Your task to perform on an android device: Show the shopping cart on amazon. Add "usb-c to usb-a" to the cart on amazon, then select checkout. Image 0: 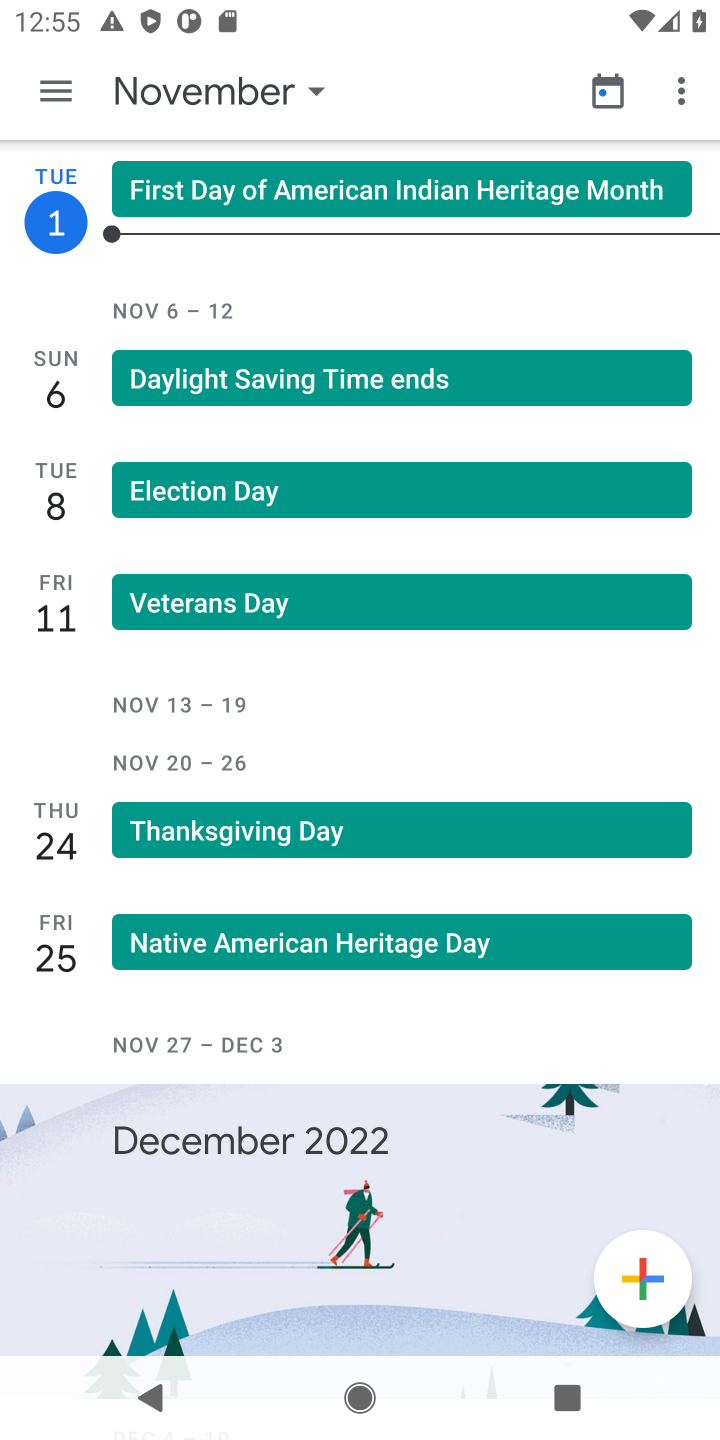
Step 0: press home button
Your task to perform on an android device: Show the shopping cart on amazon. Add "usb-c to usb-a" to the cart on amazon, then select checkout. Image 1: 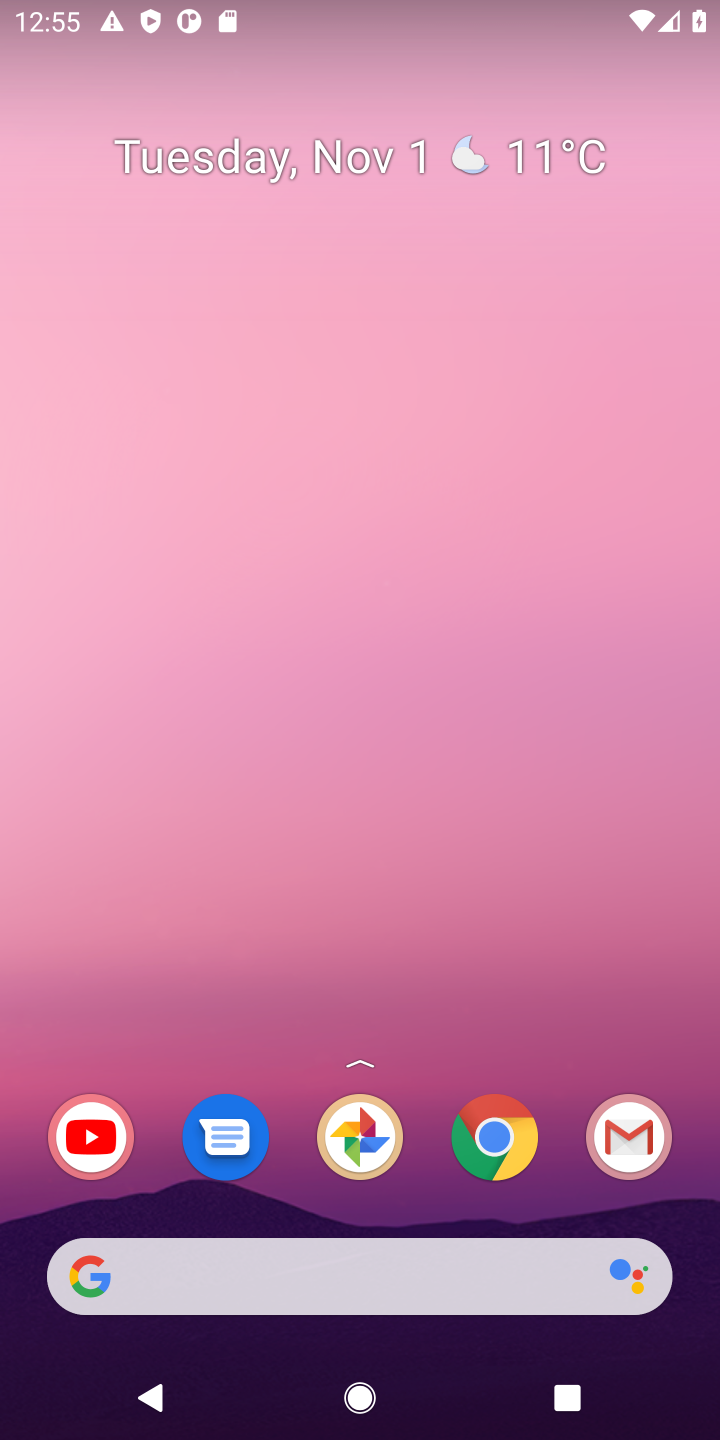
Step 1: click (493, 1147)
Your task to perform on an android device: Show the shopping cart on amazon. Add "usb-c to usb-a" to the cart on amazon, then select checkout. Image 2: 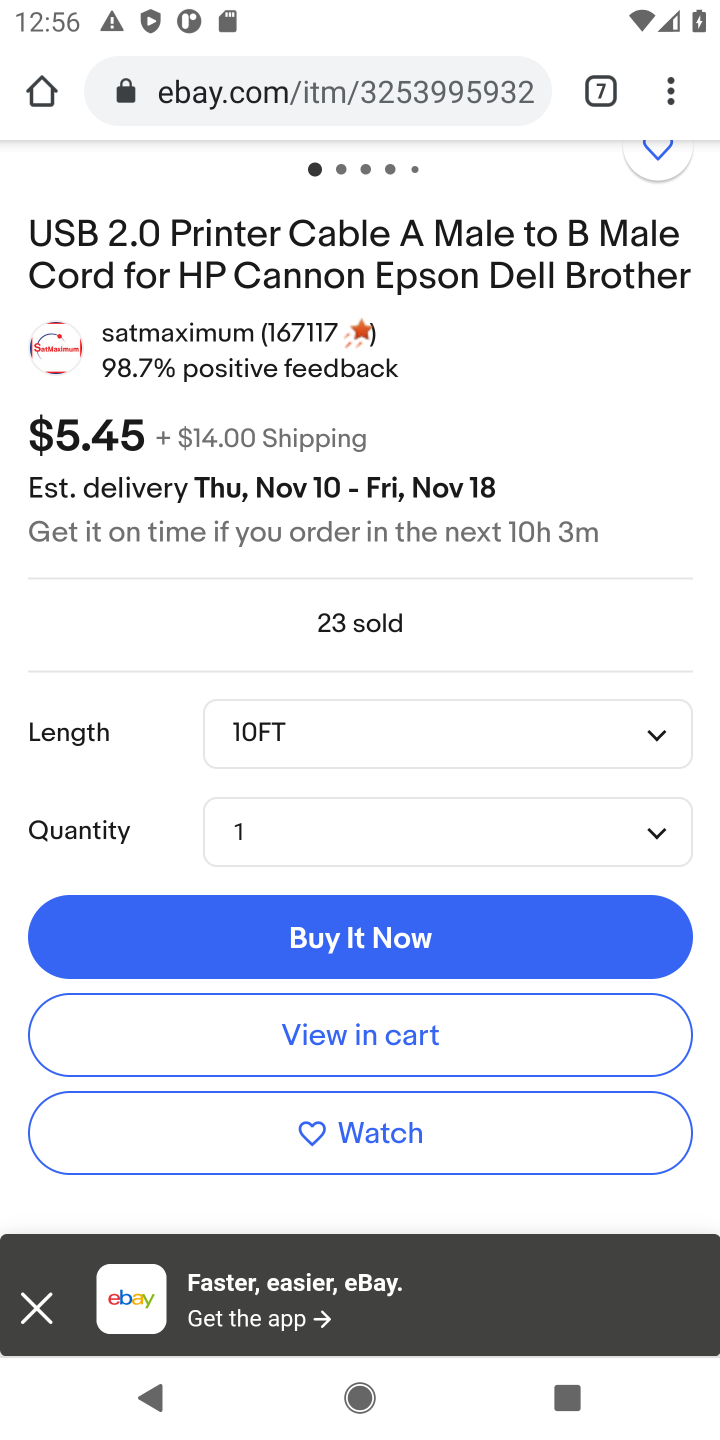
Step 2: click (597, 90)
Your task to perform on an android device: Show the shopping cart on amazon. Add "usb-c to usb-a" to the cart on amazon, then select checkout. Image 3: 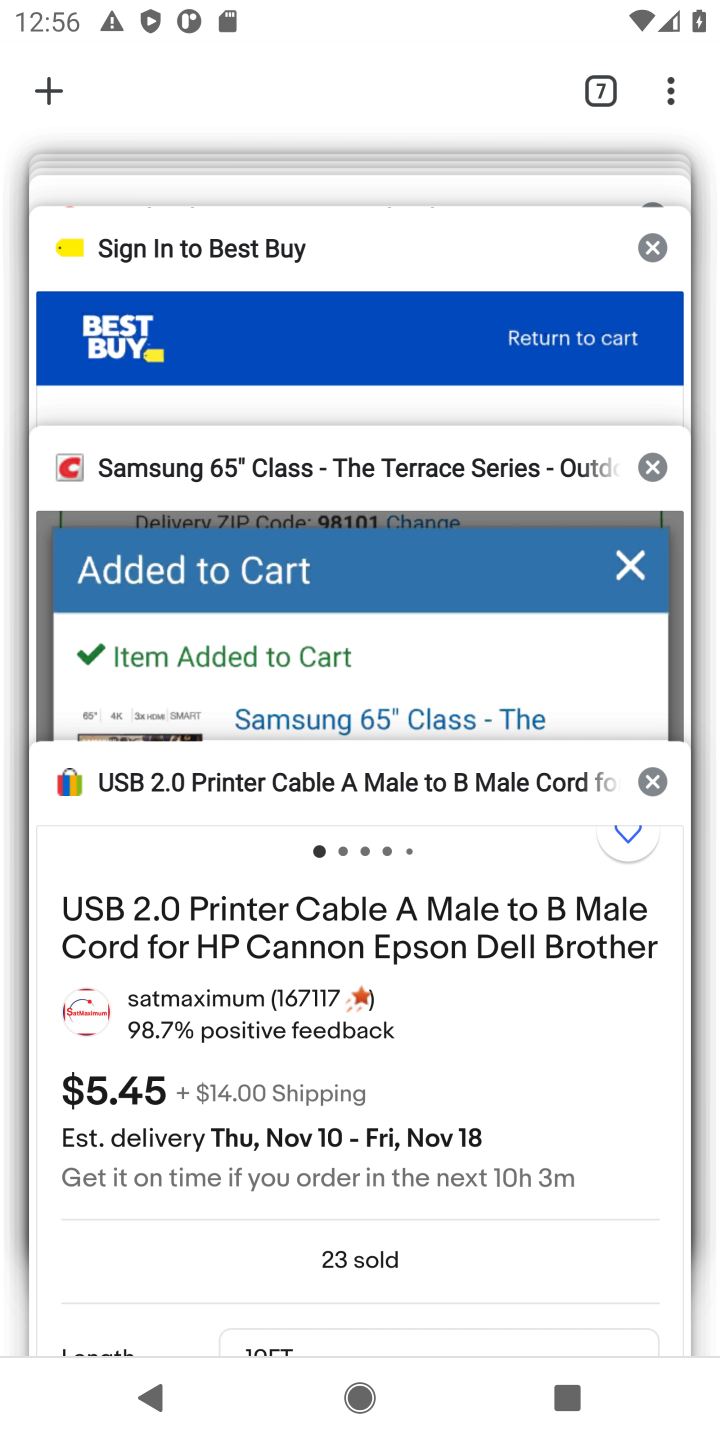
Step 3: drag from (393, 283) to (358, 592)
Your task to perform on an android device: Show the shopping cart on amazon. Add "usb-c to usb-a" to the cart on amazon, then select checkout. Image 4: 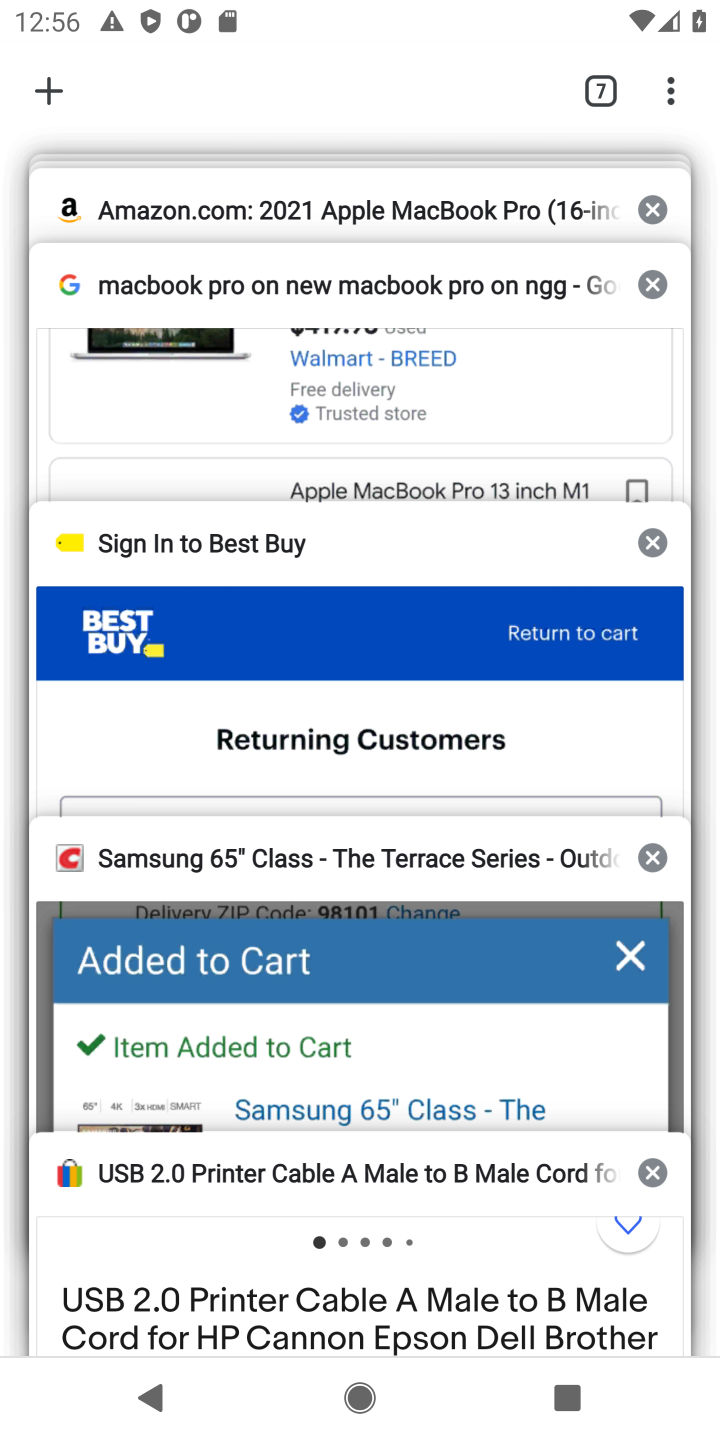
Step 4: drag from (424, 265) to (395, 489)
Your task to perform on an android device: Show the shopping cart on amazon. Add "usb-c to usb-a" to the cart on amazon, then select checkout. Image 5: 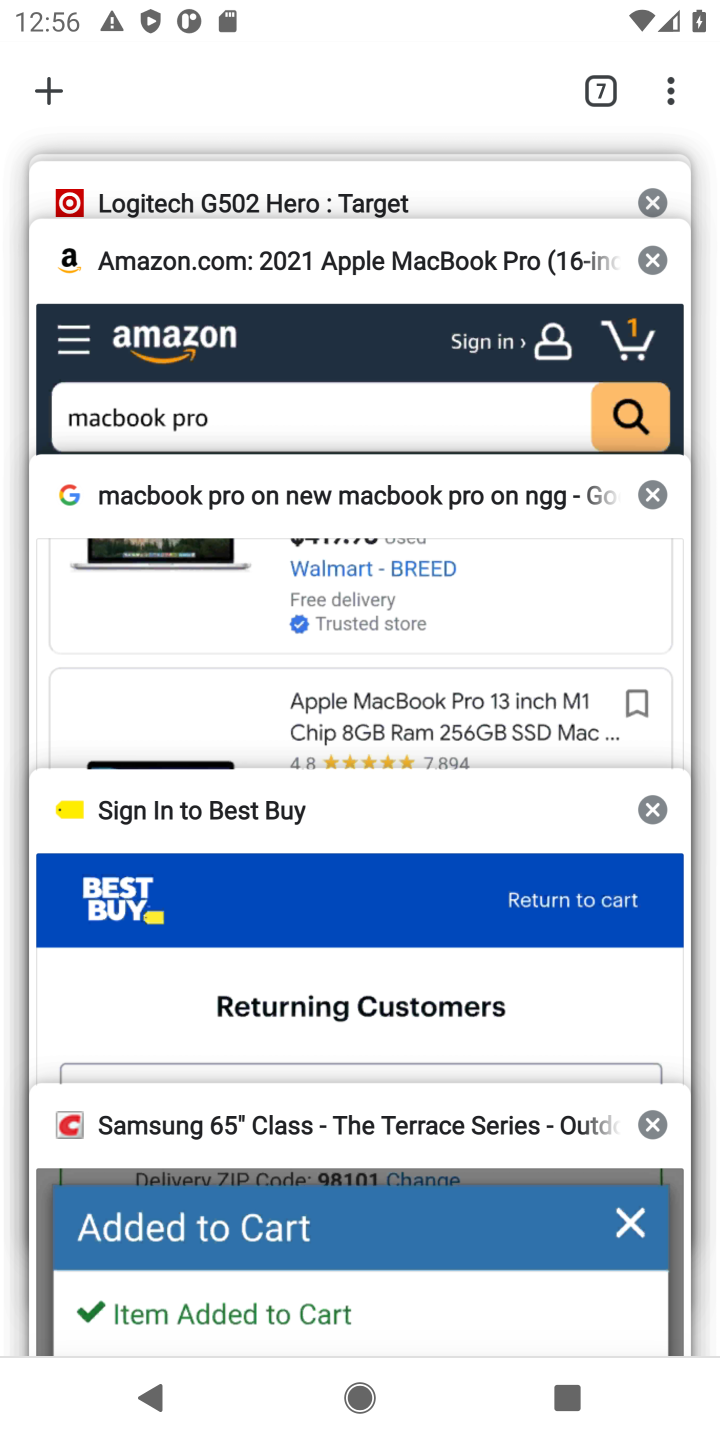
Step 5: click (386, 302)
Your task to perform on an android device: Show the shopping cart on amazon. Add "usb-c to usb-a" to the cart on amazon, then select checkout. Image 6: 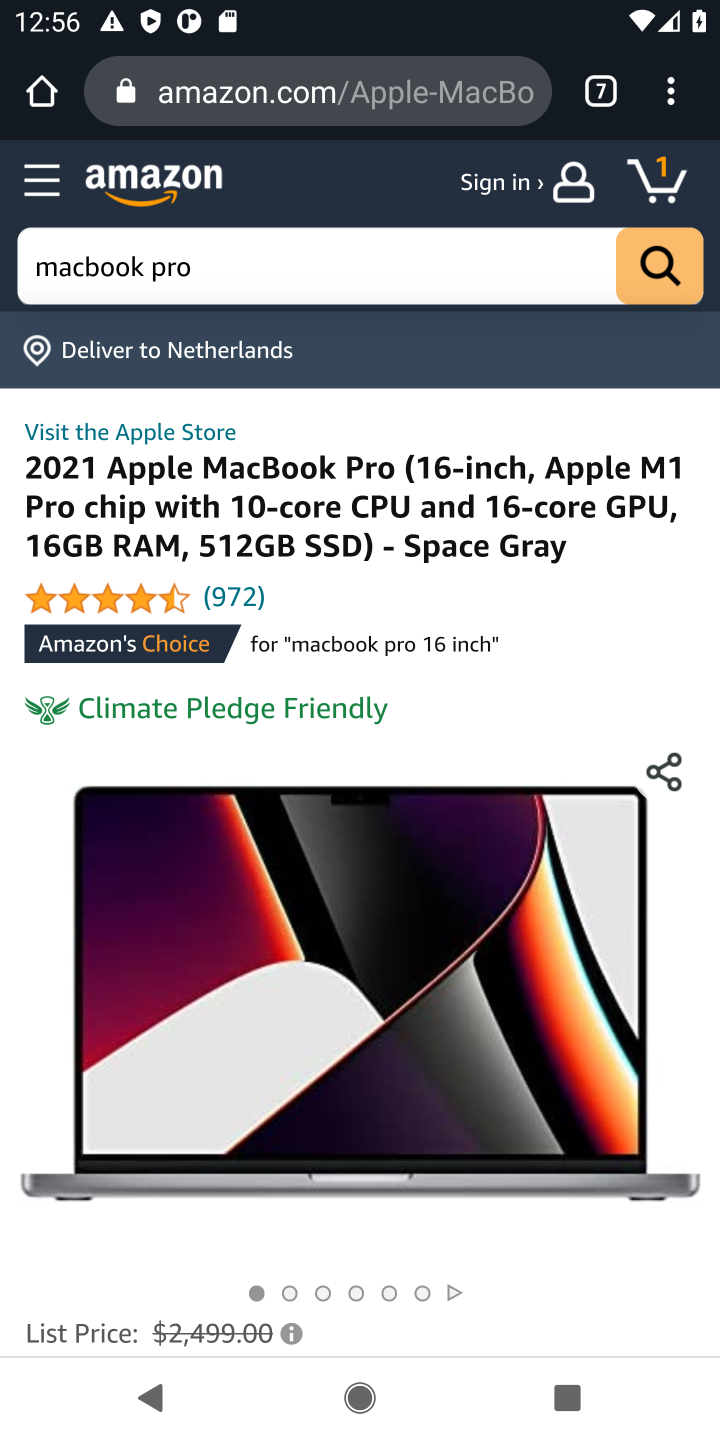
Step 6: click (305, 260)
Your task to perform on an android device: Show the shopping cart on amazon. Add "usb-c to usb-a" to the cart on amazon, then select checkout. Image 7: 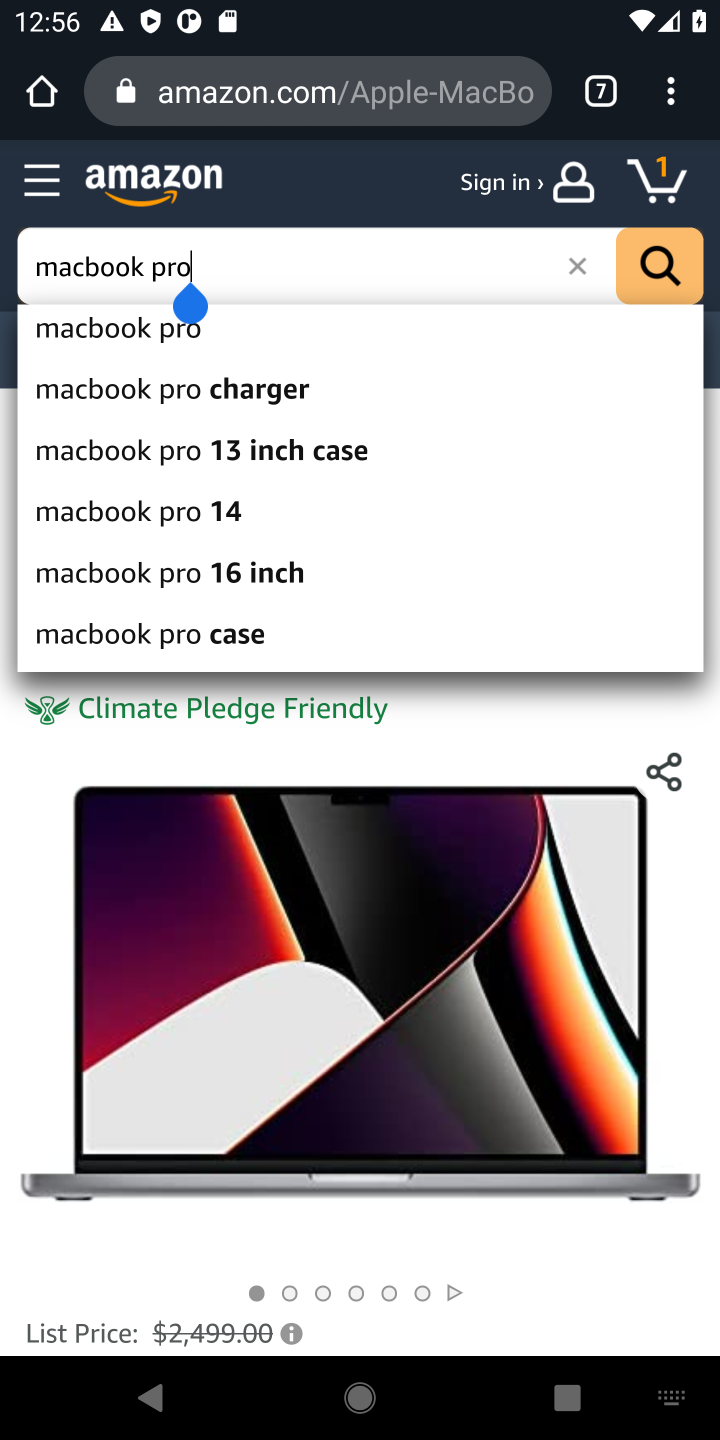
Step 7: click (583, 274)
Your task to perform on an android device: Show the shopping cart on amazon. Add "usb-c to usb-a" to the cart on amazon, then select checkout. Image 8: 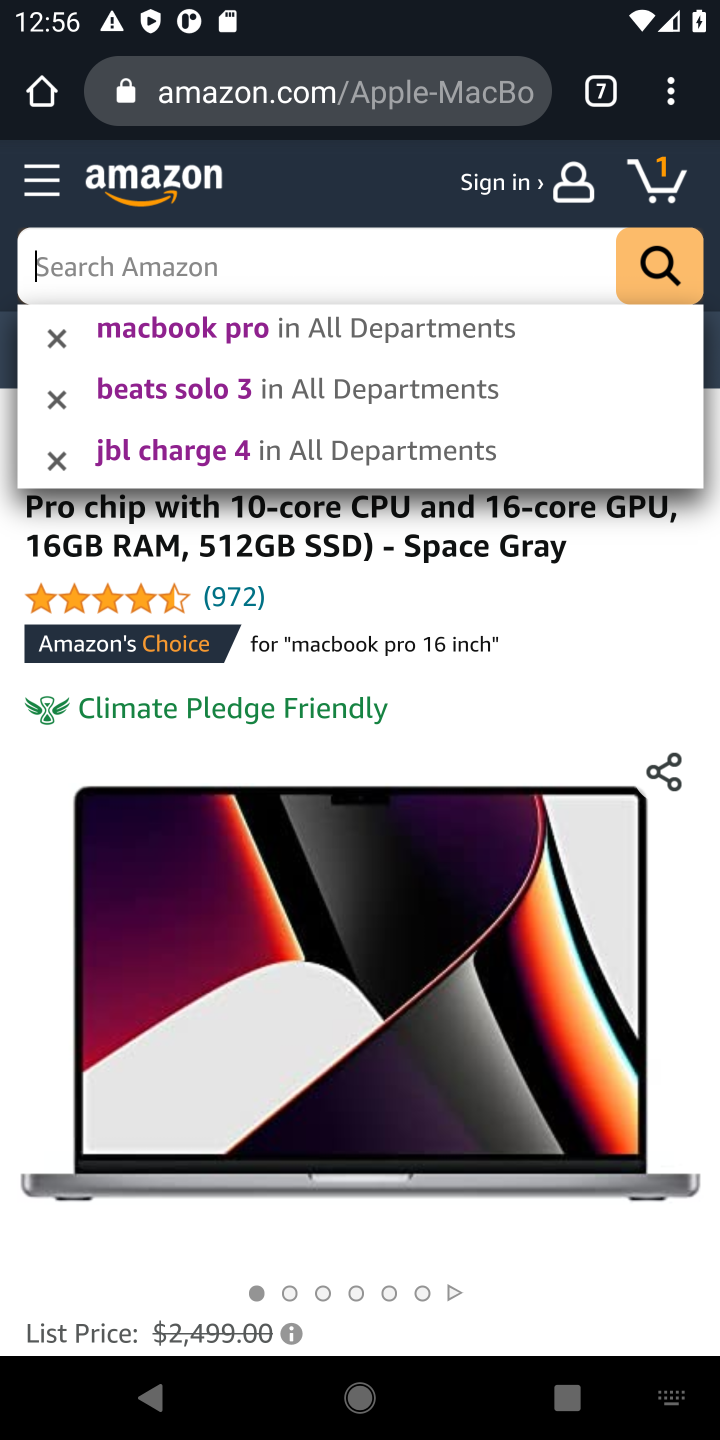
Step 8: type "usb-c to usb-a"
Your task to perform on an android device: Show the shopping cart on amazon. Add "usb-c to usb-a" to the cart on amazon, then select checkout. Image 9: 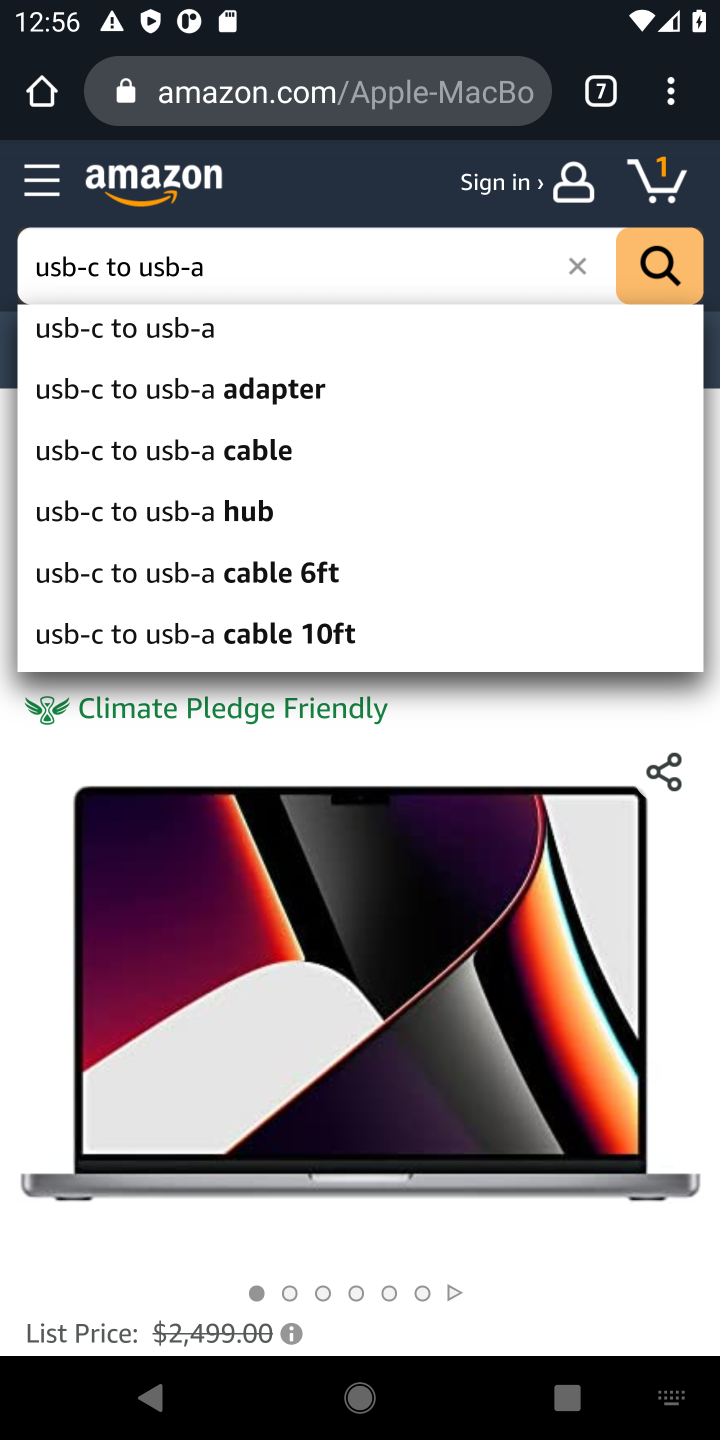
Step 9: click (188, 330)
Your task to perform on an android device: Show the shopping cart on amazon. Add "usb-c to usb-a" to the cart on amazon, then select checkout. Image 10: 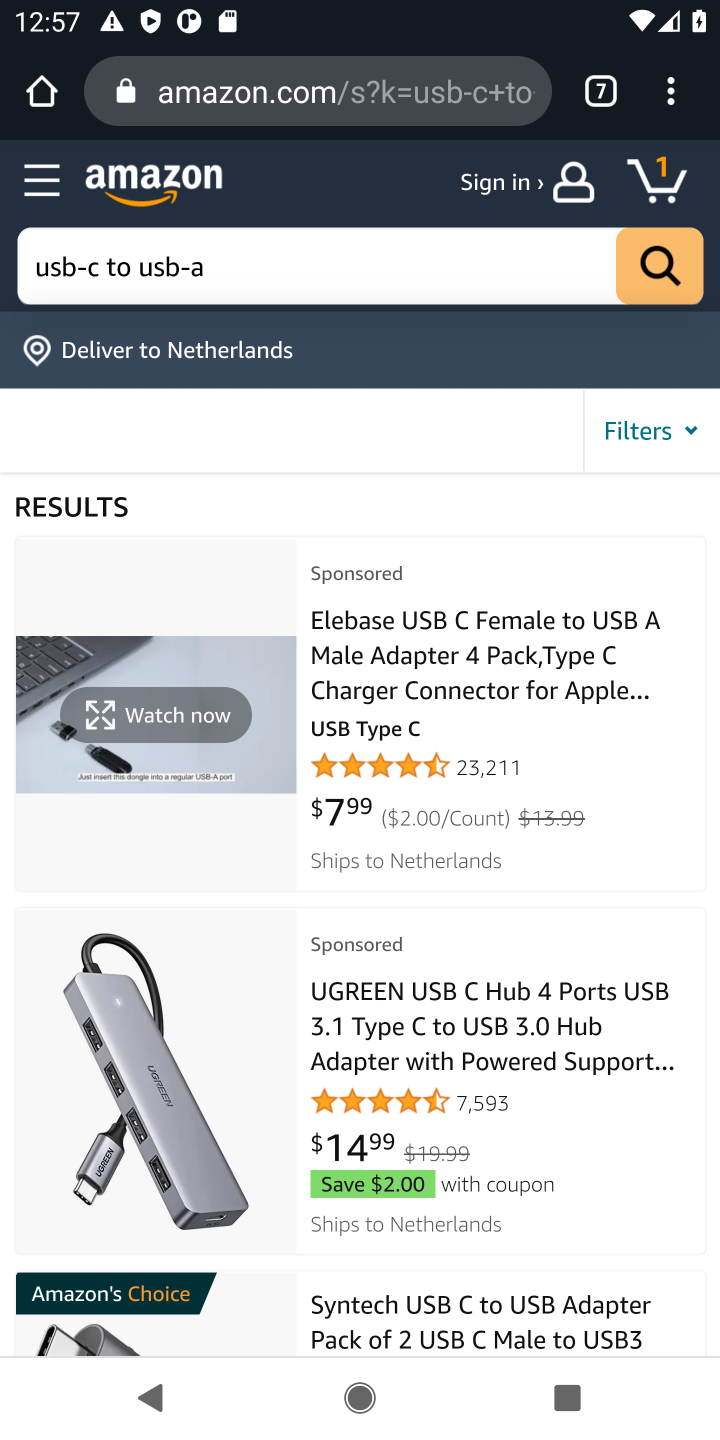
Step 10: click (450, 1043)
Your task to perform on an android device: Show the shopping cart on amazon. Add "usb-c to usb-a" to the cart on amazon, then select checkout. Image 11: 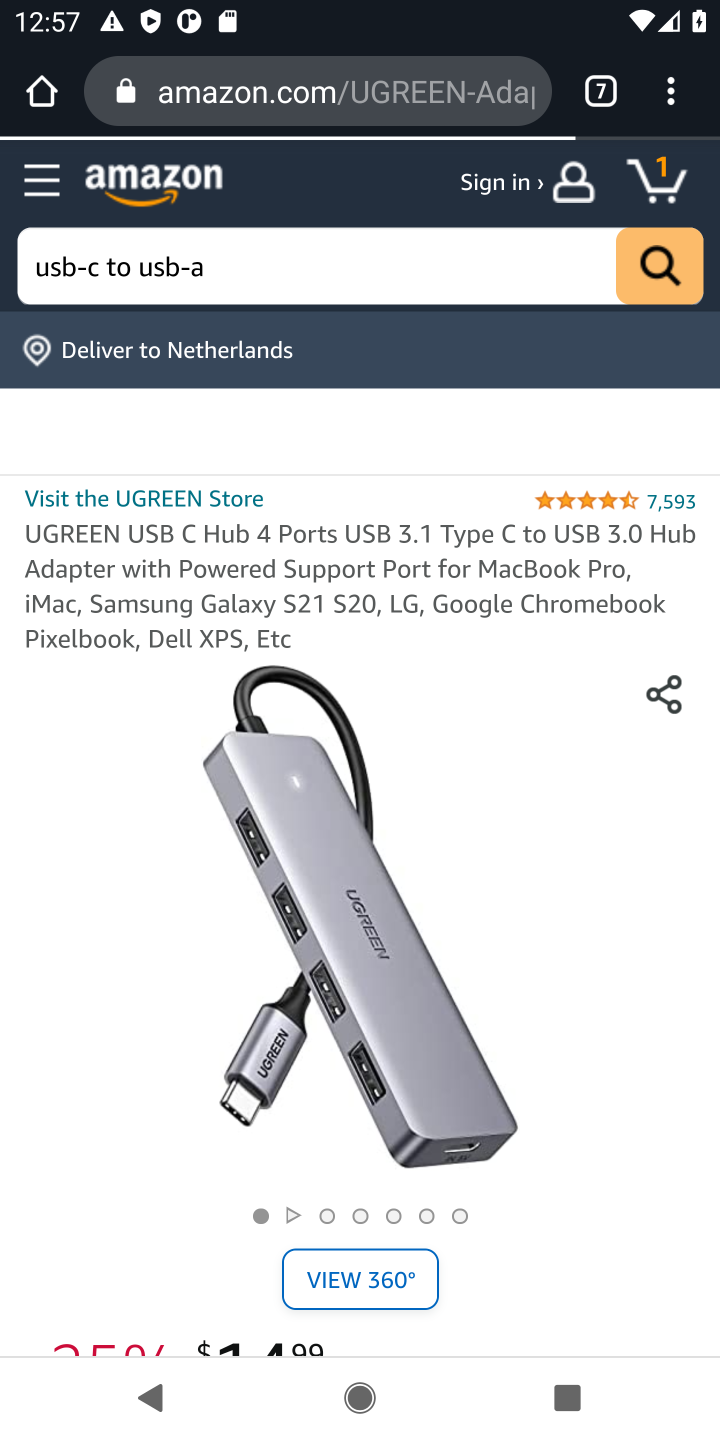
Step 11: drag from (571, 1319) to (615, 349)
Your task to perform on an android device: Show the shopping cart on amazon. Add "usb-c to usb-a" to the cart on amazon, then select checkout. Image 12: 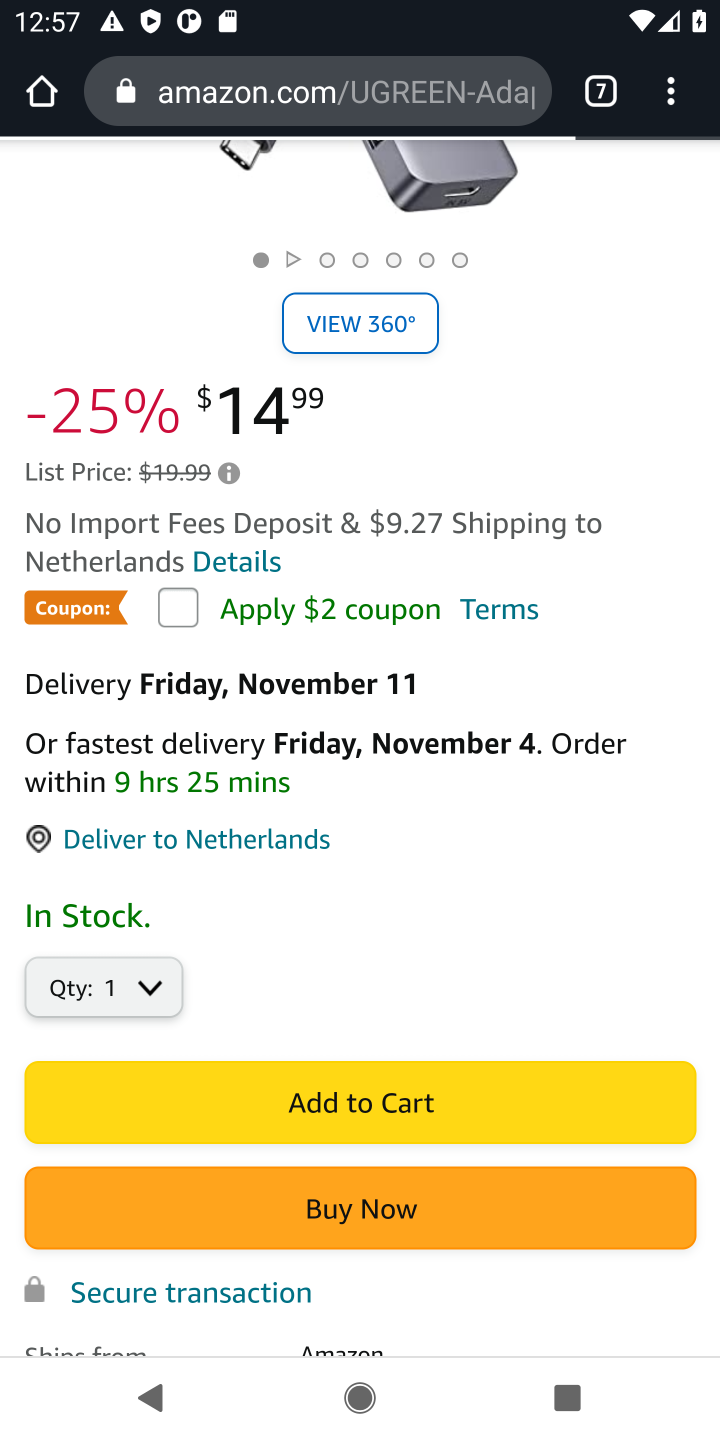
Step 12: click (314, 1097)
Your task to perform on an android device: Show the shopping cart on amazon. Add "usb-c to usb-a" to the cart on amazon, then select checkout. Image 13: 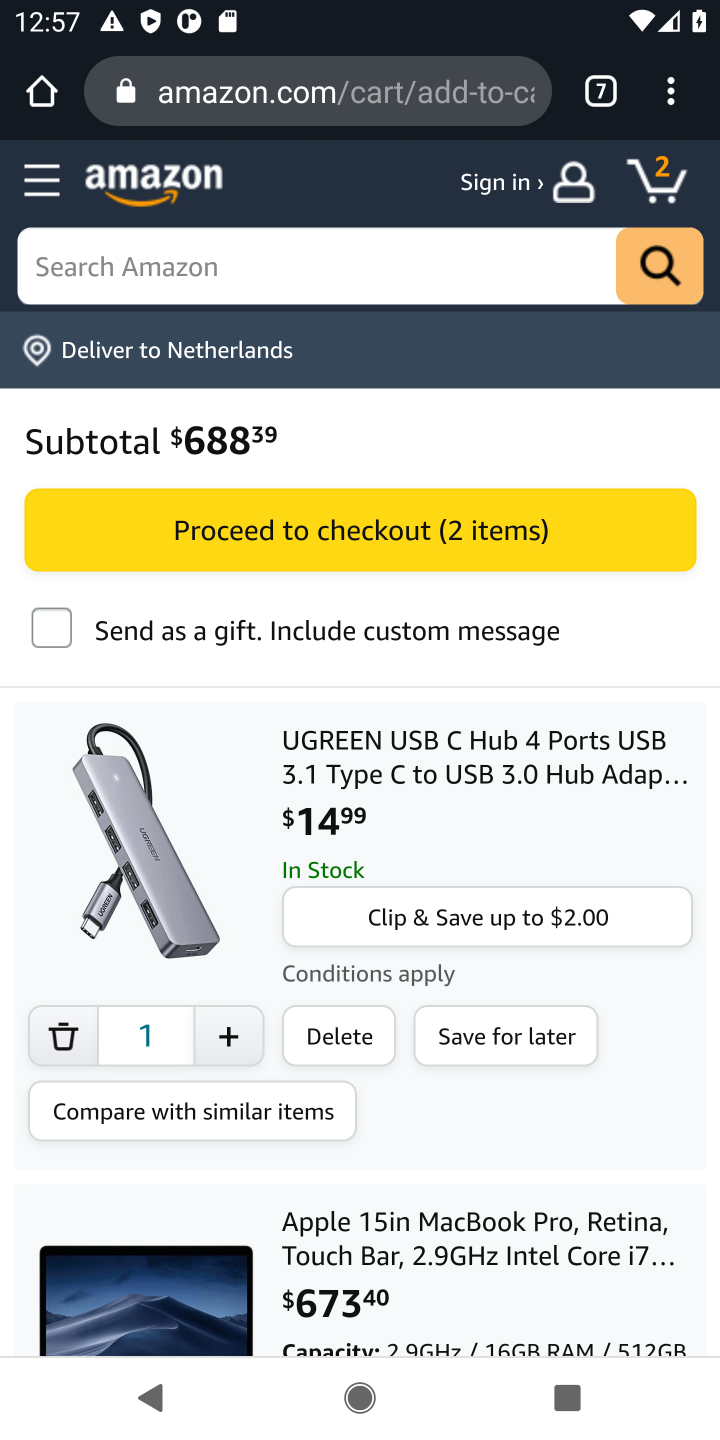
Step 13: click (400, 528)
Your task to perform on an android device: Show the shopping cart on amazon. Add "usb-c to usb-a" to the cart on amazon, then select checkout. Image 14: 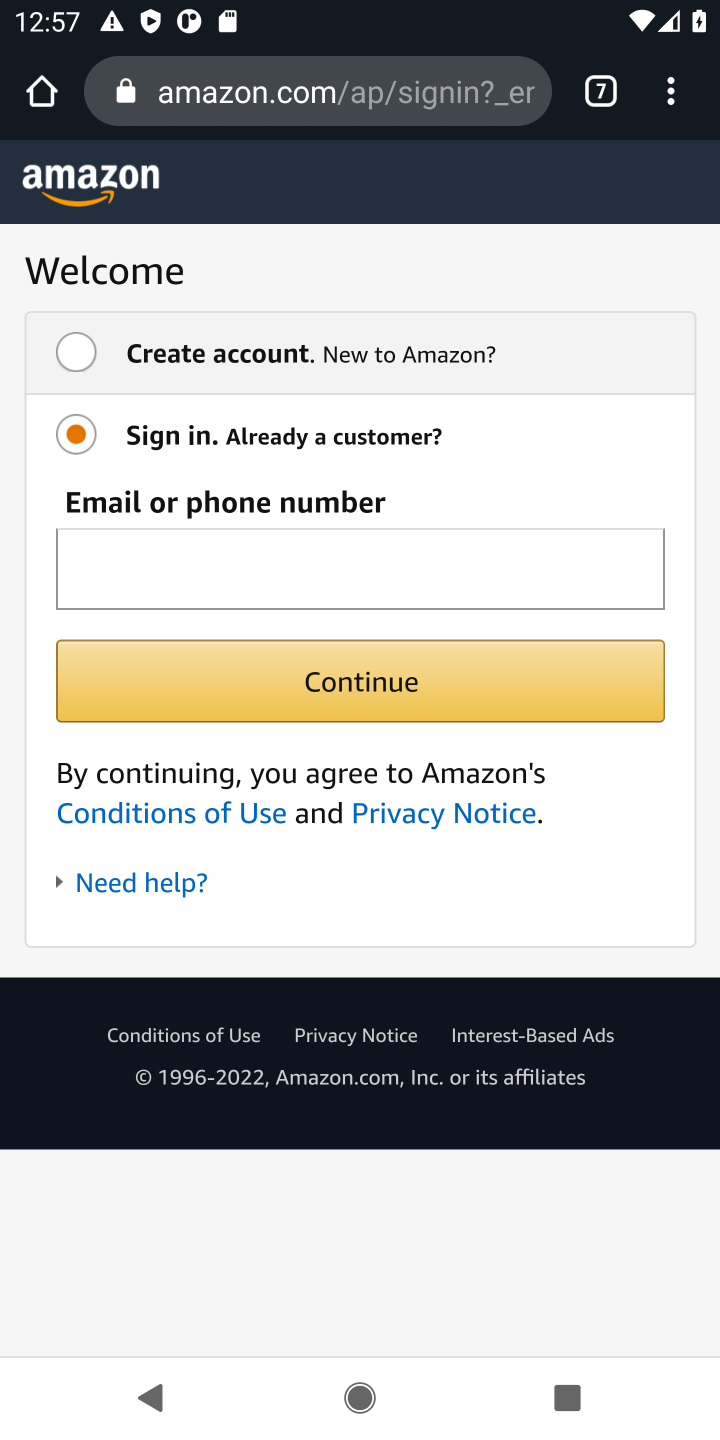
Step 14: task complete